Your task to perform on an android device: turn on location history Image 0: 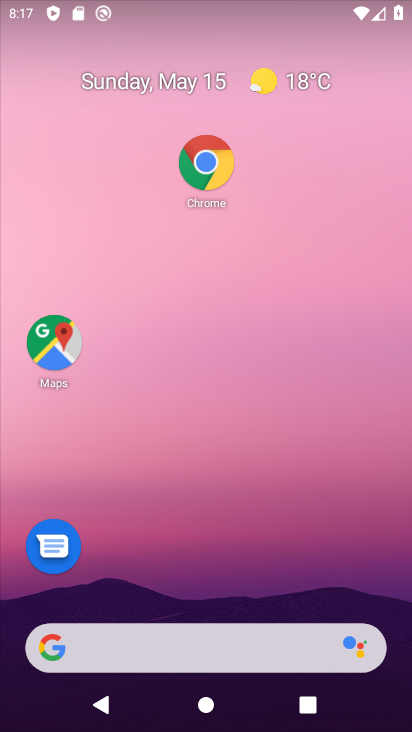
Step 0: drag from (222, 243) to (327, 143)
Your task to perform on an android device: turn on location history Image 1: 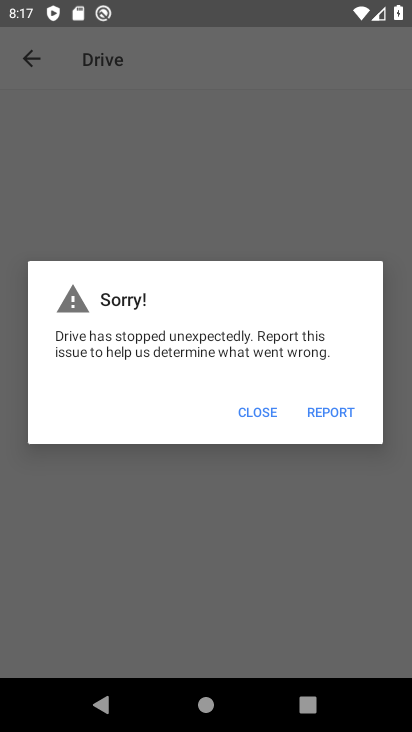
Step 1: drag from (195, 605) to (315, 143)
Your task to perform on an android device: turn on location history Image 2: 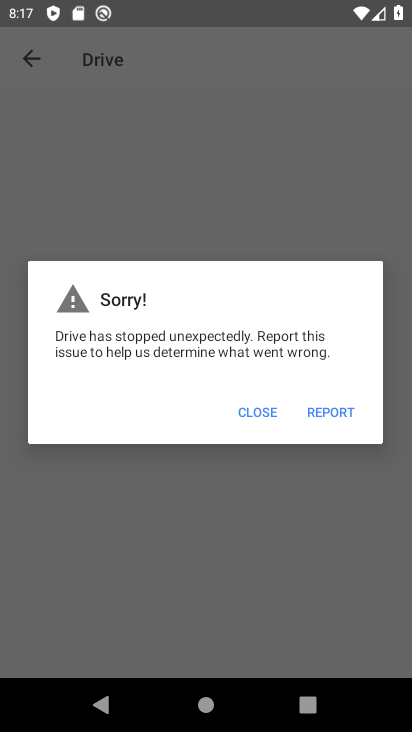
Step 2: click (262, 413)
Your task to perform on an android device: turn on location history Image 3: 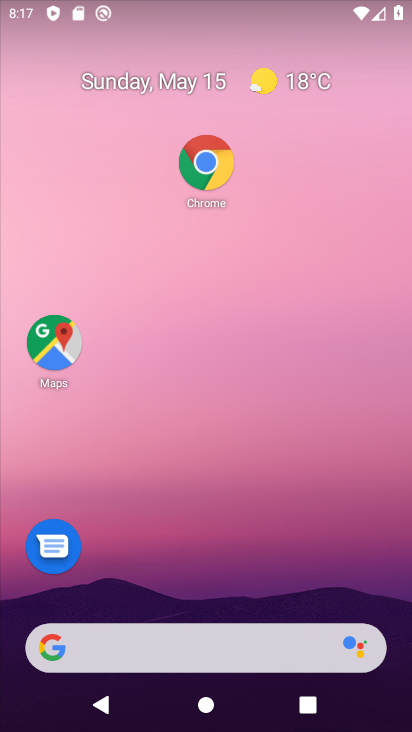
Step 3: drag from (242, 500) to (310, 156)
Your task to perform on an android device: turn on location history Image 4: 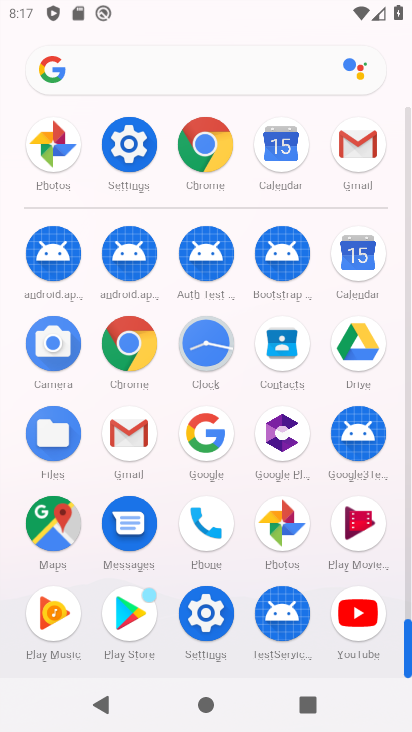
Step 4: click (195, 143)
Your task to perform on an android device: turn on location history Image 5: 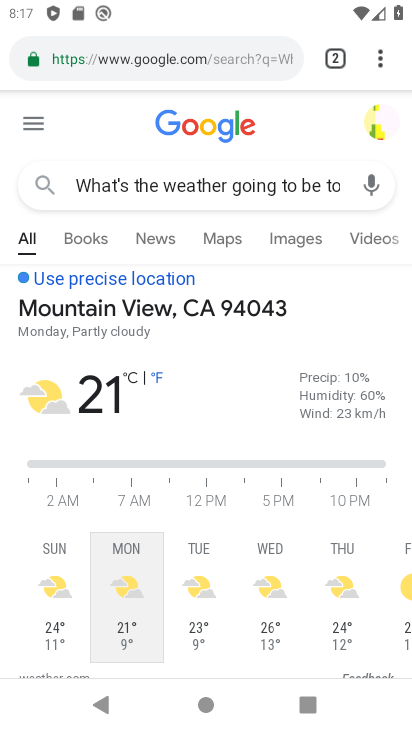
Step 5: click (390, 66)
Your task to perform on an android device: turn on location history Image 6: 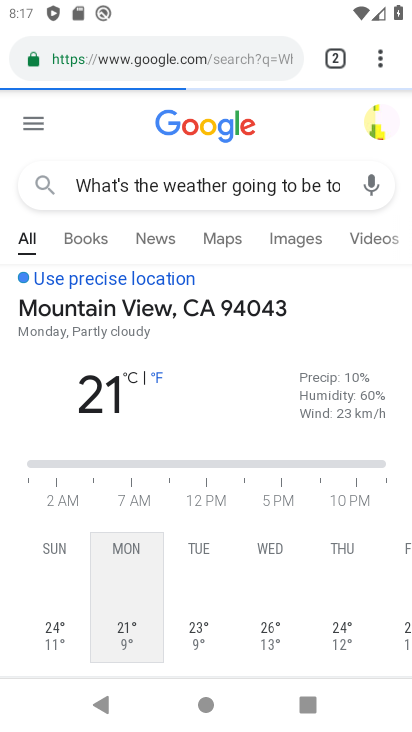
Step 6: press home button
Your task to perform on an android device: turn on location history Image 7: 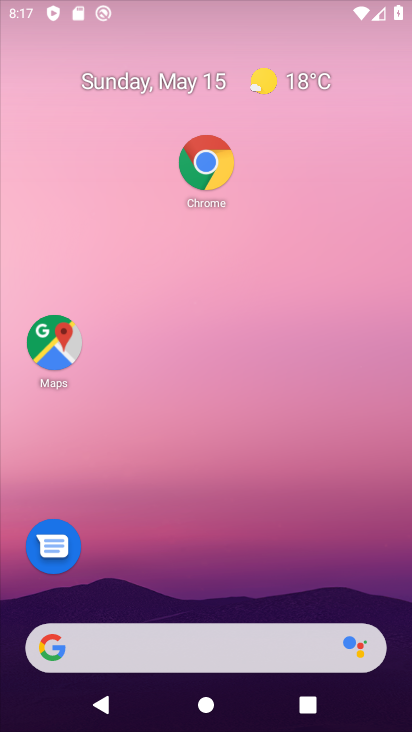
Step 7: drag from (217, 585) to (233, 206)
Your task to perform on an android device: turn on location history Image 8: 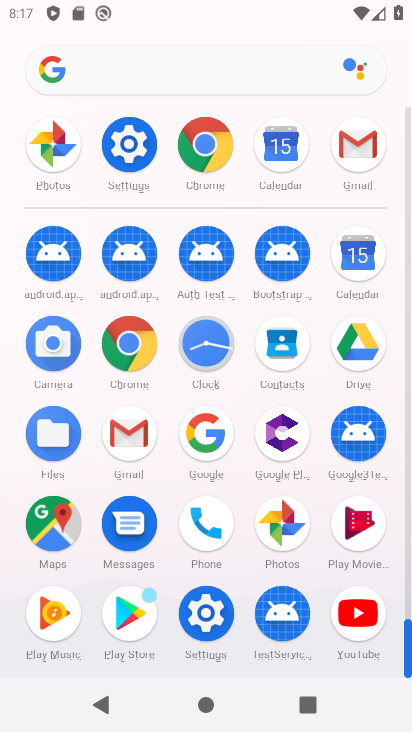
Step 8: click (120, 134)
Your task to perform on an android device: turn on location history Image 9: 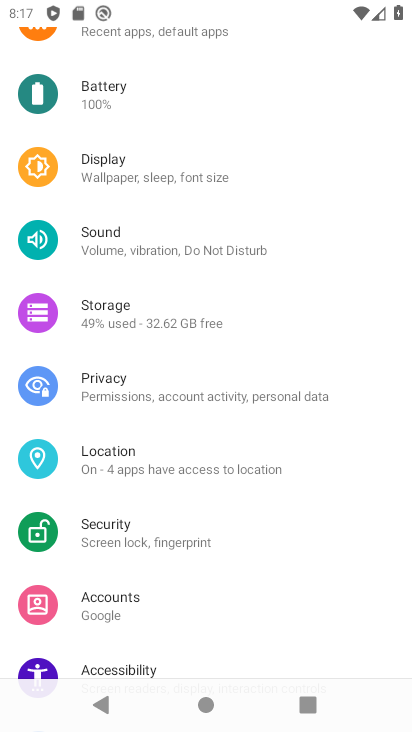
Step 9: click (145, 474)
Your task to perform on an android device: turn on location history Image 10: 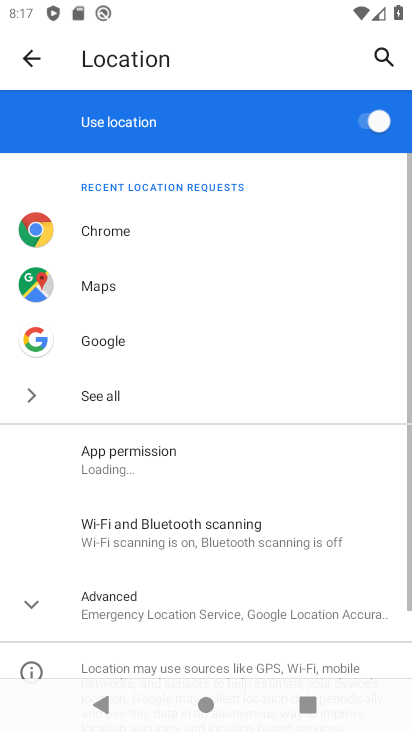
Step 10: drag from (252, 627) to (324, 228)
Your task to perform on an android device: turn on location history Image 11: 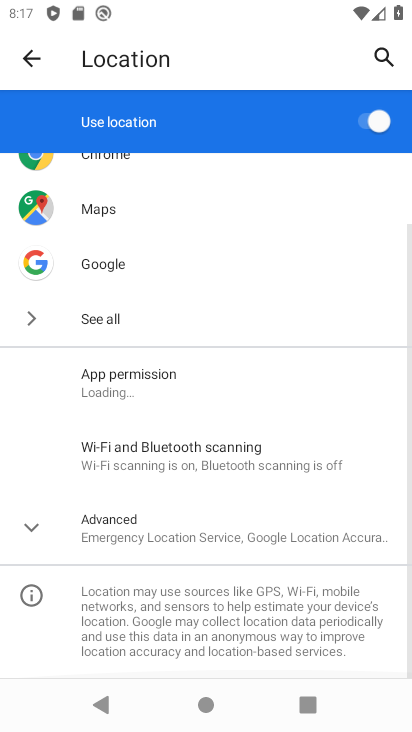
Step 11: click (134, 513)
Your task to perform on an android device: turn on location history Image 12: 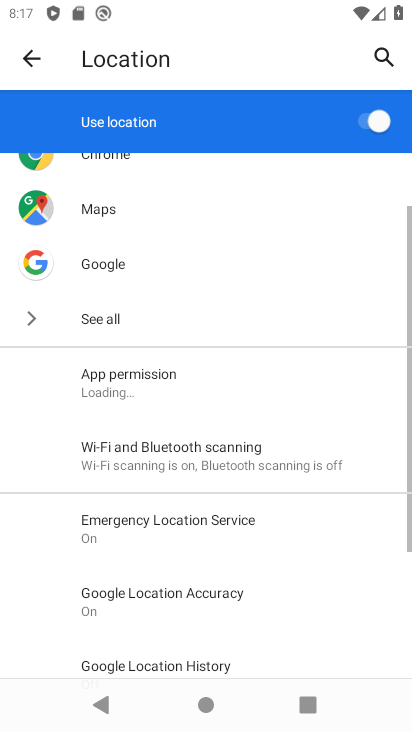
Step 12: drag from (177, 602) to (204, 392)
Your task to perform on an android device: turn on location history Image 13: 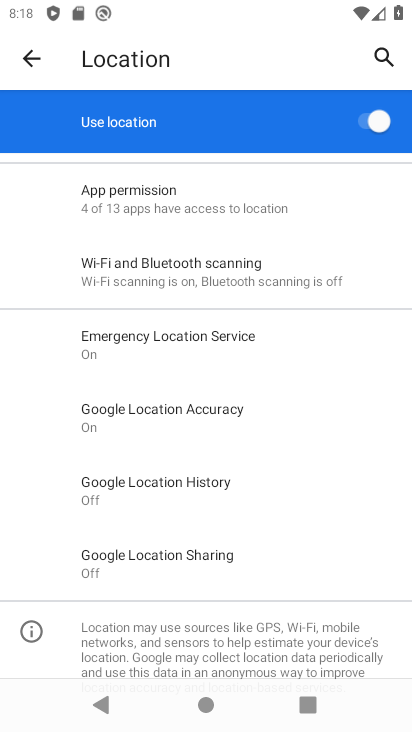
Step 13: click (164, 499)
Your task to perform on an android device: turn on location history Image 14: 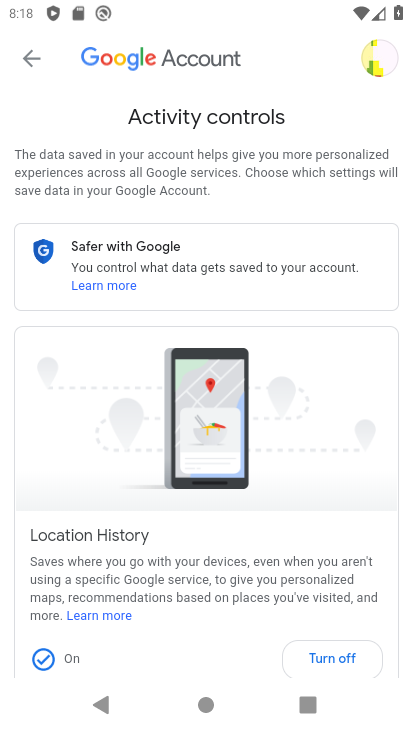
Step 14: drag from (183, 596) to (281, 372)
Your task to perform on an android device: turn on location history Image 15: 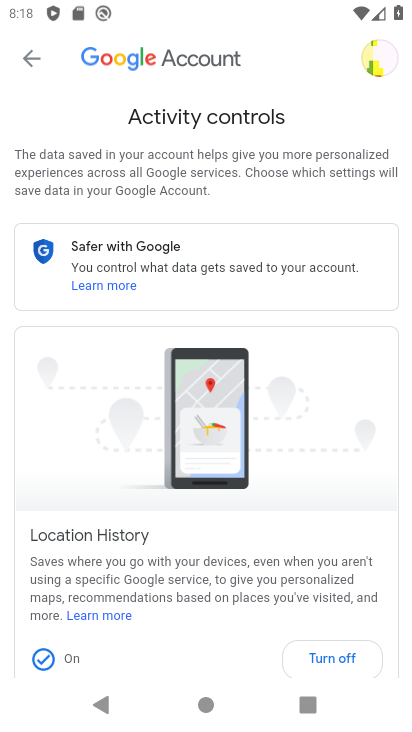
Step 15: click (68, 652)
Your task to perform on an android device: turn on location history Image 16: 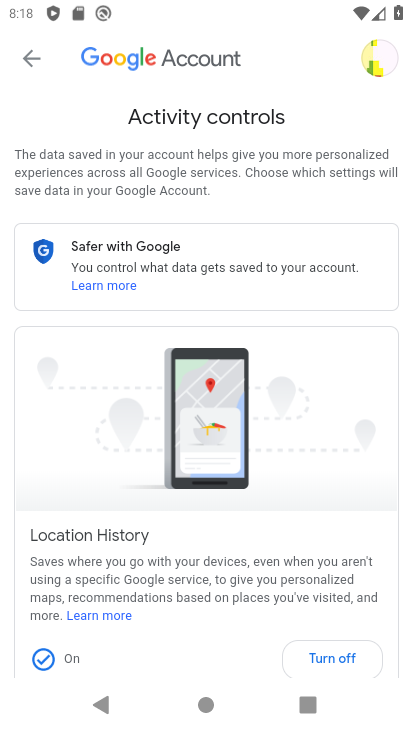
Step 16: click (68, 651)
Your task to perform on an android device: turn on location history Image 17: 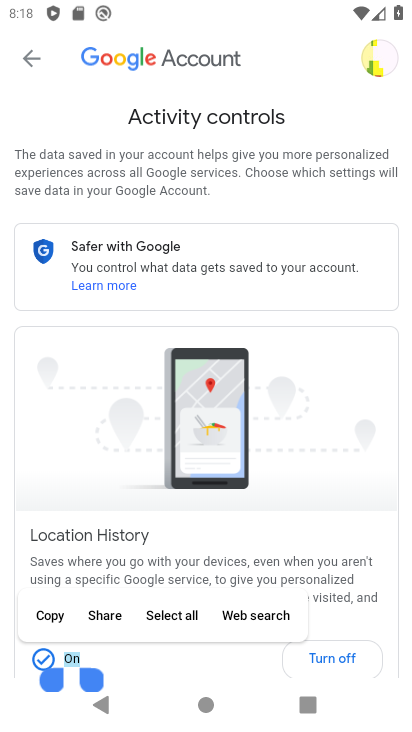
Step 17: click (328, 660)
Your task to perform on an android device: turn on location history Image 18: 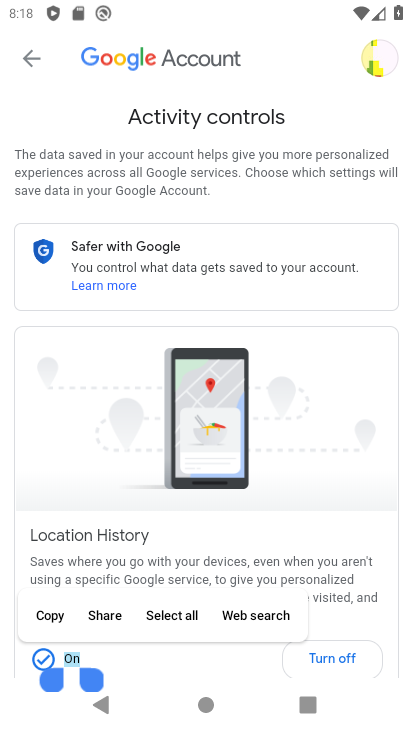
Step 18: click (328, 660)
Your task to perform on an android device: turn on location history Image 19: 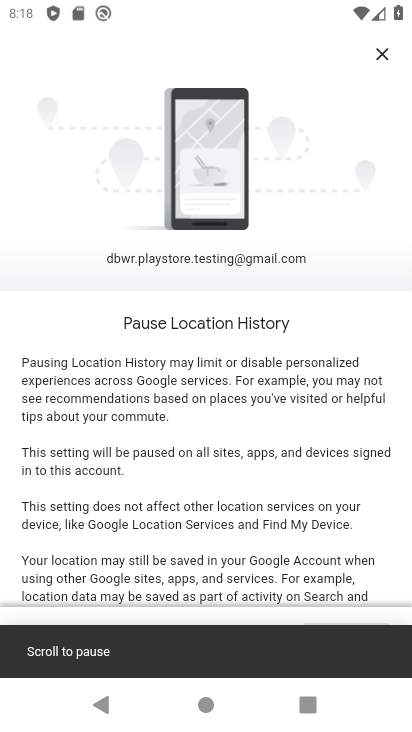
Step 19: task complete